Your task to perform on an android device: toggle translation in the chrome app Image 0: 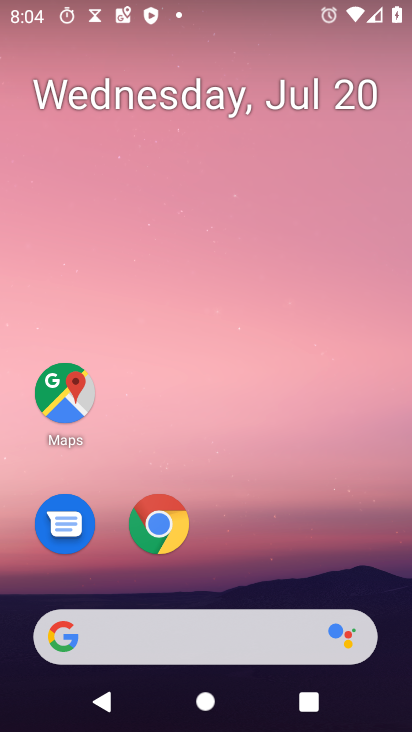
Step 0: click (164, 517)
Your task to perform on an android device: toggle translation in the chrome app Image 1: 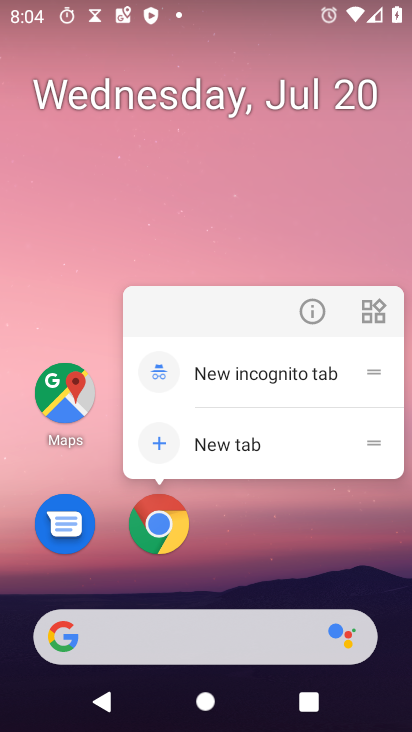
Step 1: click (162, 527)
Your task to perform on an android device: toggle translation in the chrome app Image 2: 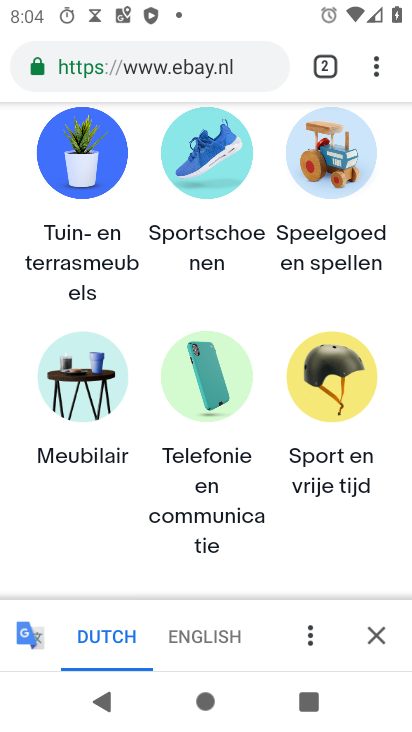
Step 2: drag from (378, 63) to (178, 521)
Your task to perform on an android device: toggle translation in the chrome app Image 3: 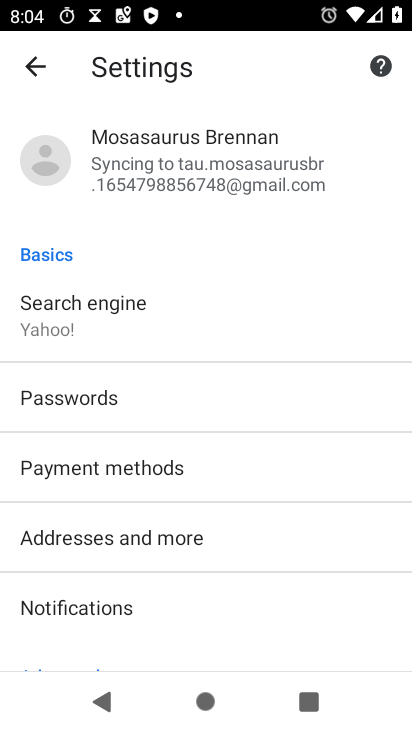
Step 3: drag from (215, 471) to (340, 120)
Your task to perform on an android device: toggle translation in the chrome app Image 4: 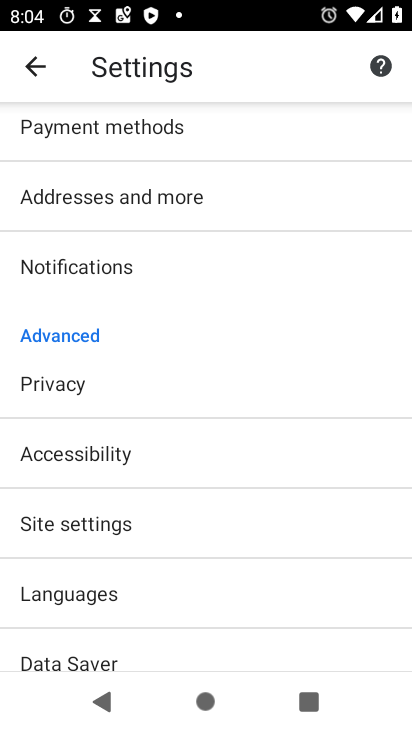
Step 4: click (85, 589)
Your task to perform on an android device: toggle translation in the chrome app Image 5: 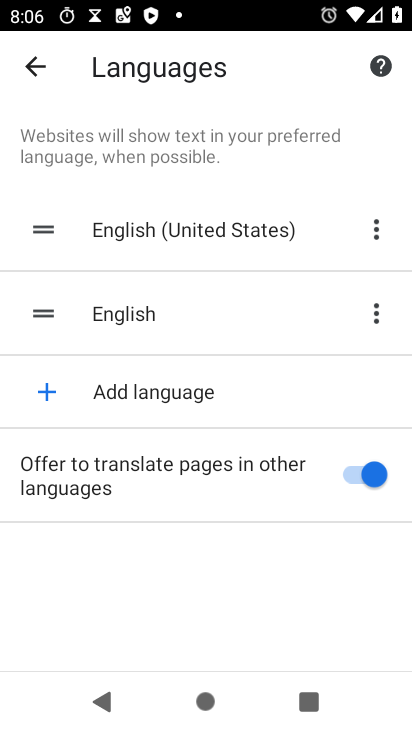
Step 5: task complete